Your task to perform on an android device: What's the weather? Image 0: 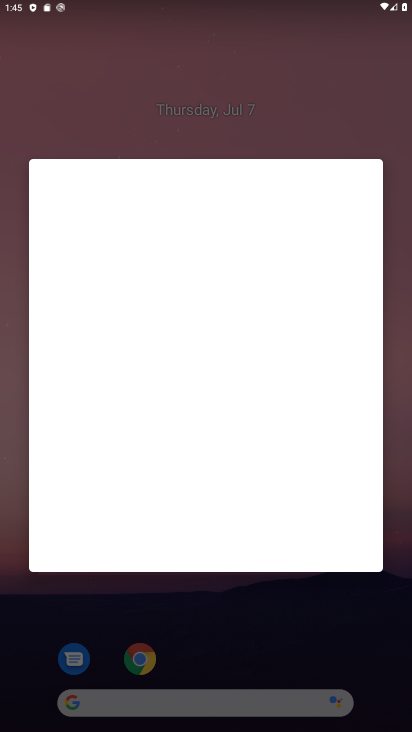
Step 0: drag from (304, 590) to (321, 359)
Your task to perform on an android device: What's the weather? Image 1: 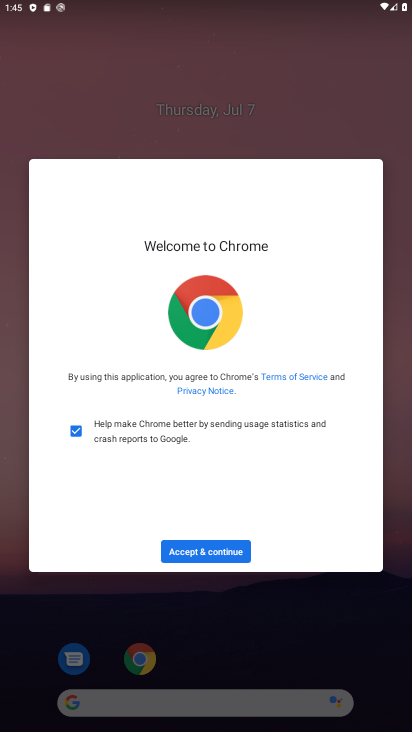
Step 1: press home button
Your task to perform on an android device: What's the weather? Image 2: 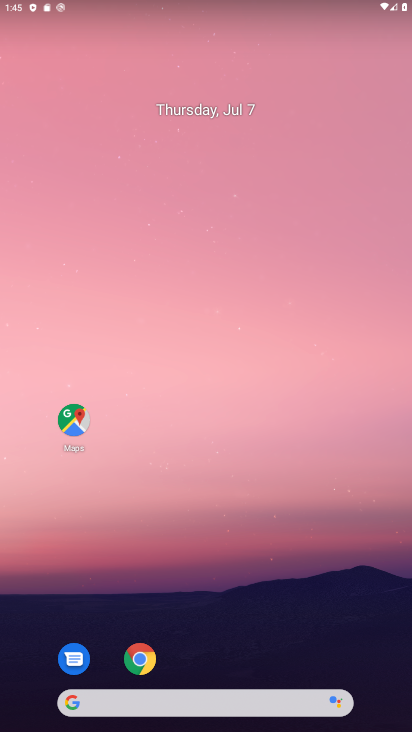
Step 2: drag from (9, 290) to (286, 286)
Your task to perform on an android device: What's the weather? Image 3: 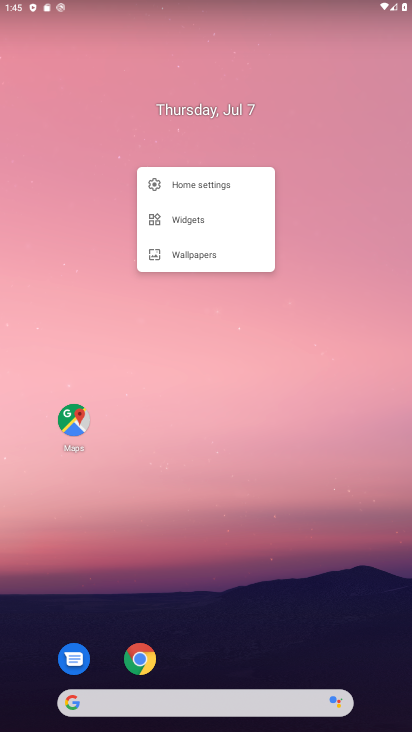
Step 3: drag from (5, 327) to (386, 330)
Your task to perform on an android device: What's the weather? Image 4: 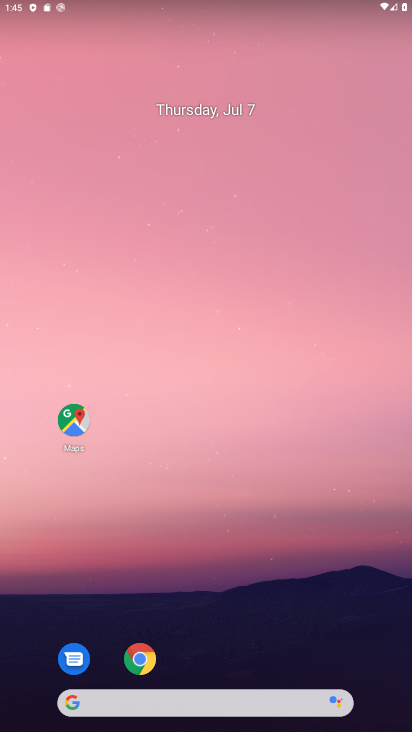
Step 4: drag from (315, 508) to (408, 487)
Your task to perform on an android device: What's the weather? Image 5: 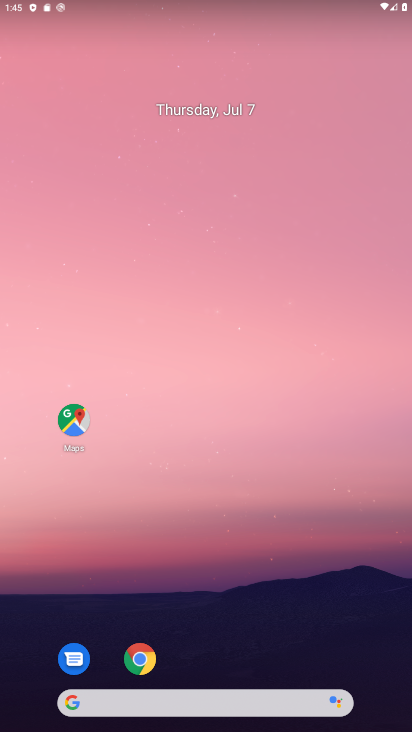
Step 5: drag from (327, 658) to (218, 67)
Your task to perform on an android device: What's the weather? Image 6: 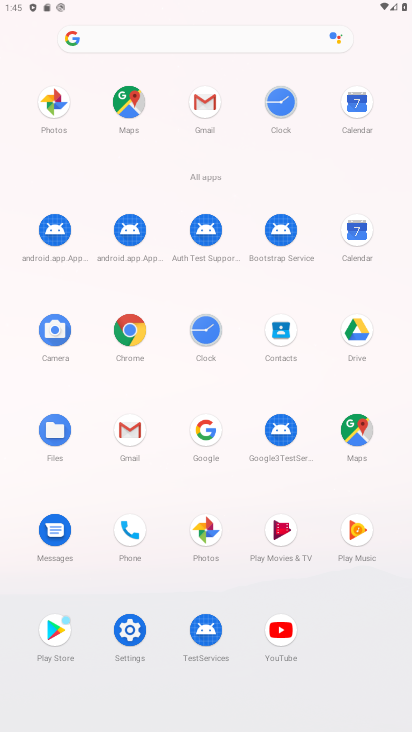
Step 6: click (138, 316)
Your task to perform on an android device: What's the weather? Image 7: 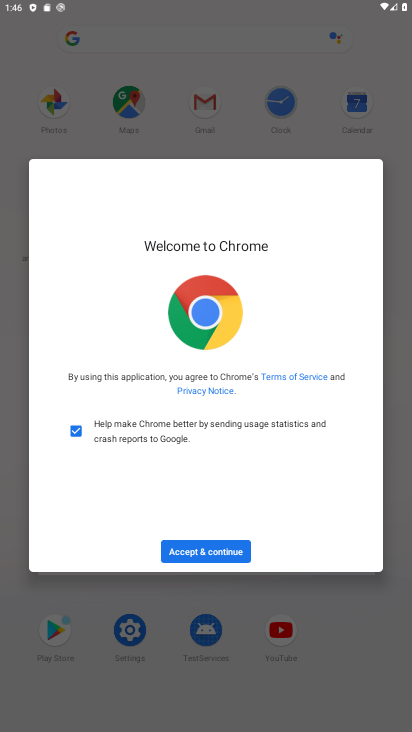
Step 7: click (232, 557)
Your task to perform on an android device: What's the weather? Image 8: 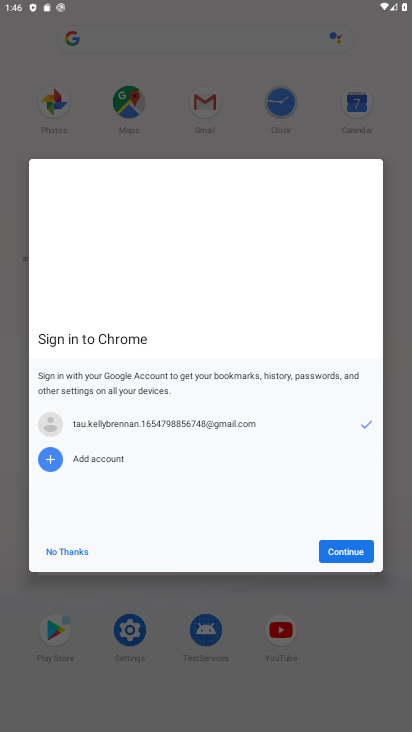
Step 8: click (340, 557)
Your task to perform on an android device: What's the weather? Image 9: 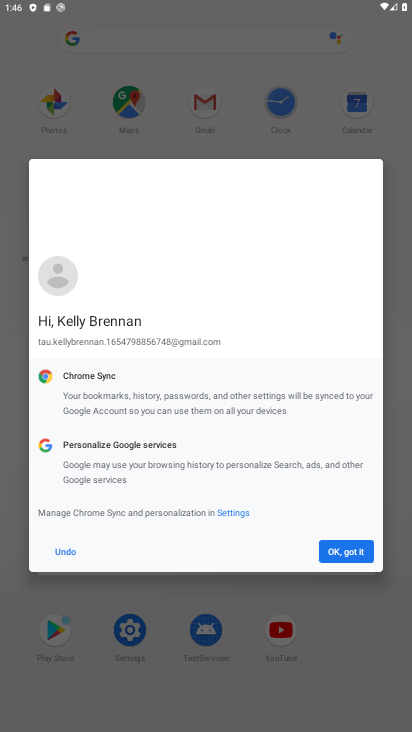
Step 9: click (340, 557)
Your task to perform on an android device: What's the weather? Image 10: 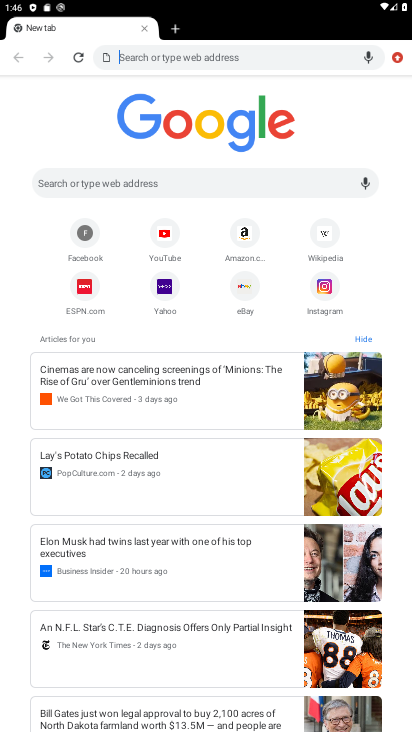
Step 10: click (209, 184)
Your task to perform on an android device: What's the weather? Image 11: 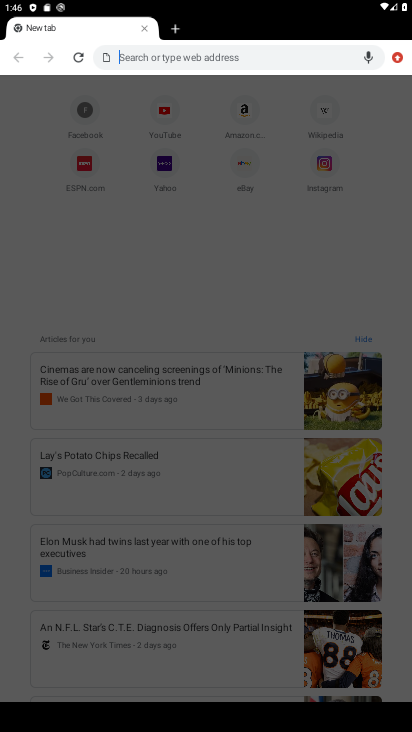
Step 11: type "weather"
Your task to perform on an android device: What's the weather? Image 12: 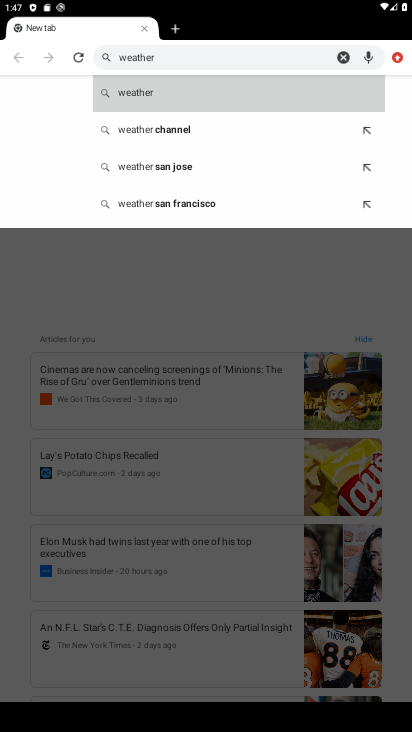
Step 12: click (133, 82)
Your task to perform on an android device: What's the weather? Image 13: 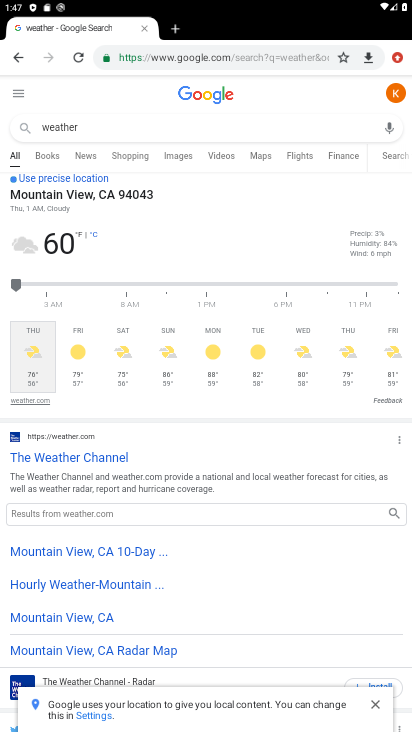
Step 13: task complete